Your task to perform on an android device: Search for the best fantasy books on Goodreads. Image 0: 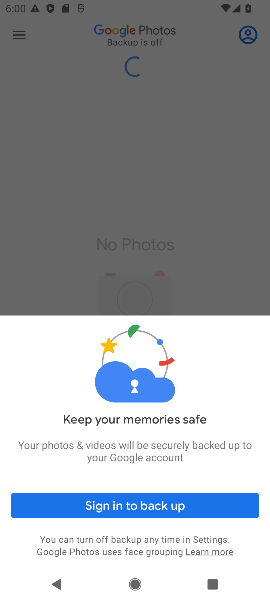
Step 0: press home button
Your task to perform on an android device: Search for the best fantasy books on Goodreads. Image 1: 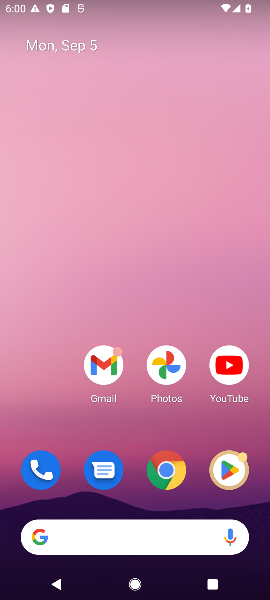
Step 1: click (146, 529)
Your task to perform on an android device: Search for the best fantasy books on Goodreads. Image 2: 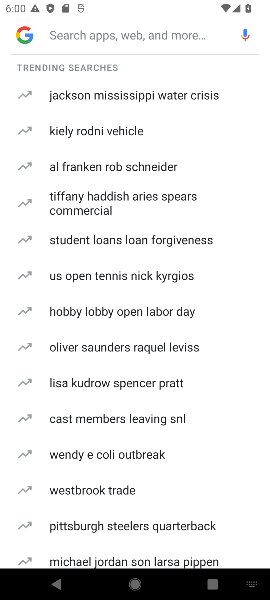
Step 2: type "goodreads"
Your task to perform on an android device: Search for the best fantasy books on Goodreads. Image 3: 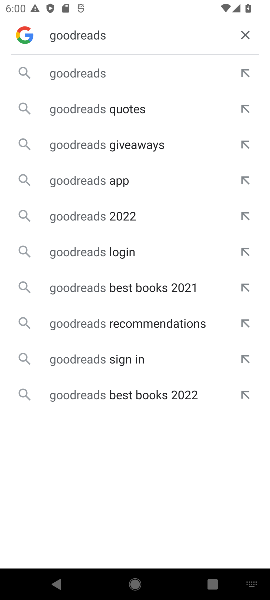
Step 3: click (92, 70)
Your task to perform on an android device: Search for the best fantasy books on Goodreads. Image 4: 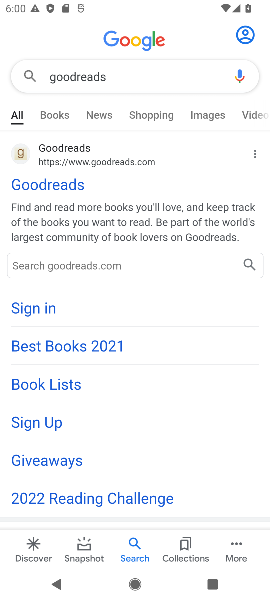
Step 4: click (53, 182)
Your task to perform on an android device: Search for the best fantasy books on Goodreads. Image 5: 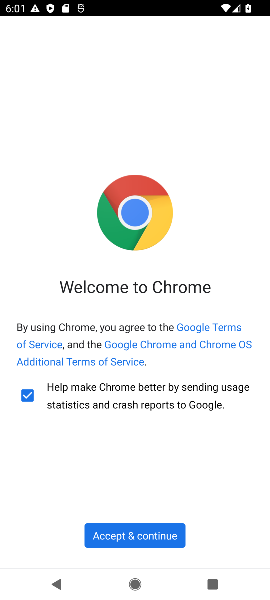
Step 5: click (149, 543)
Your task to perform on an android device: Search for the best fantasy books on Goodreads. Image 6: 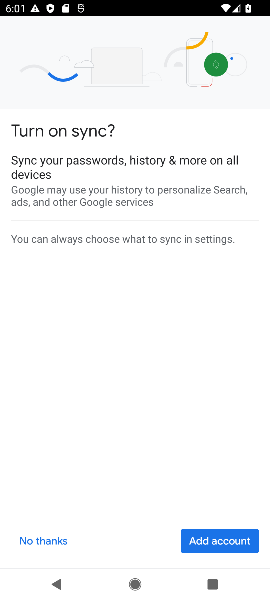
Step 6: click (34, 540)
Your task to perform on an android device: Search for the best fantasy books on Goodreads. Image 7: 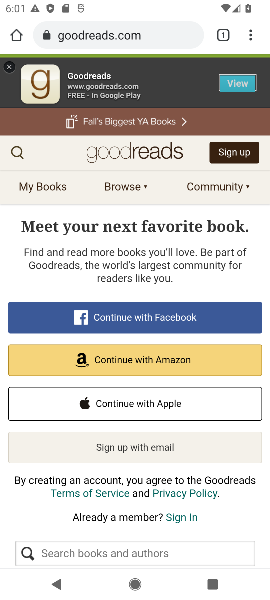
Step 7: click (21, 154)
Your task to perform on an android device: Search for the best fantasy books on Goodreads. Image 8: 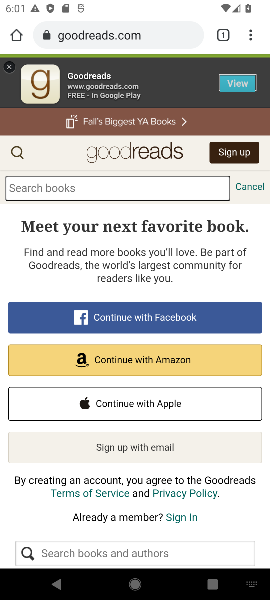
Step 8: click (125, 187)
Your task to perform on an android device: Search for the best fantasy books on Goodreads. Image 9: 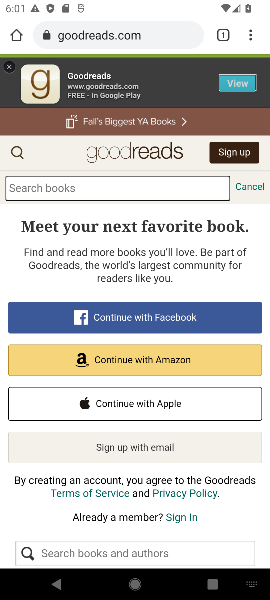
Step 9: type "best fantasy books"
Your task to perform on an android device: Search for the best fantasy books on Goodreads. Image 10: 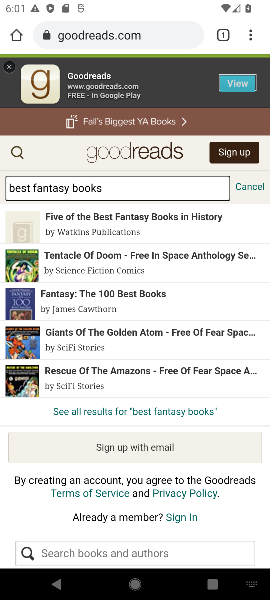
Step 10: click (135, 414)
Your task to perform on an android device: Search for the best fantasy books on Goodreads. Image 11: 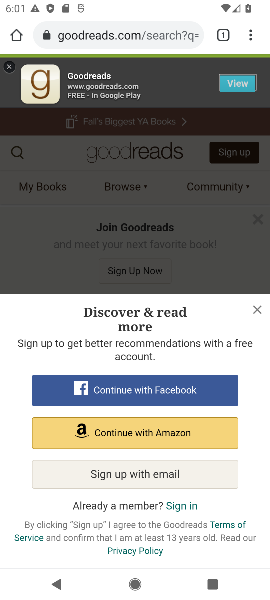
Step 11: click (254, 304)
Your task to perform on an android device: Search for the best fantasy books on Goodreads. Image 12: 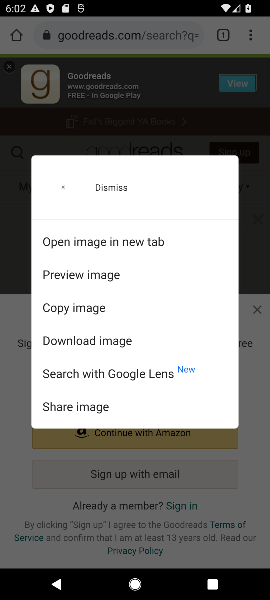
Step 12: click (11, 223)
Your task to perform on an android device: Search for the best fantasy books on Goodreads. Image 13: 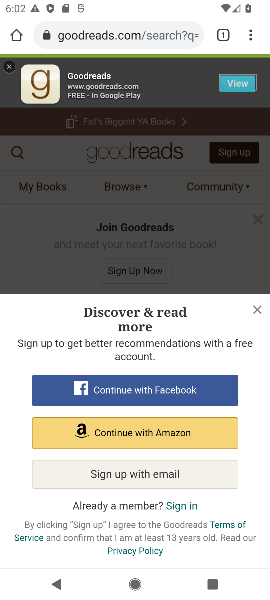
Step 13: click (254, 308)
Your task to perform on an android device: Search for the best fantasy books on Goodreads. Image 14: 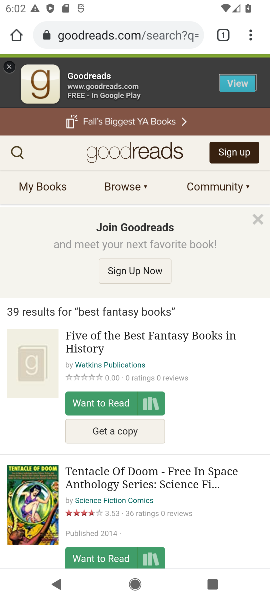
Step 14: task complete